Your task to perform on an android device: Open Google Chrome and click the shortcut for Amazon.com Image 0: 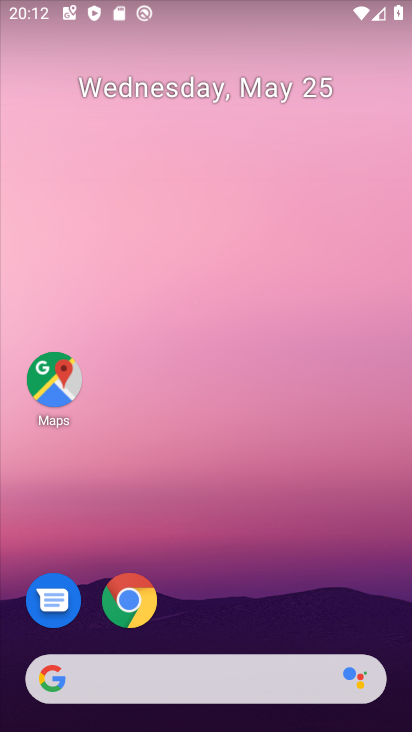
Step 0: drag from (345, 534) to (299, 197)
Your task to perform on an android device: Open Google Chrome and click the shortcut for Amazon.com Image 1: 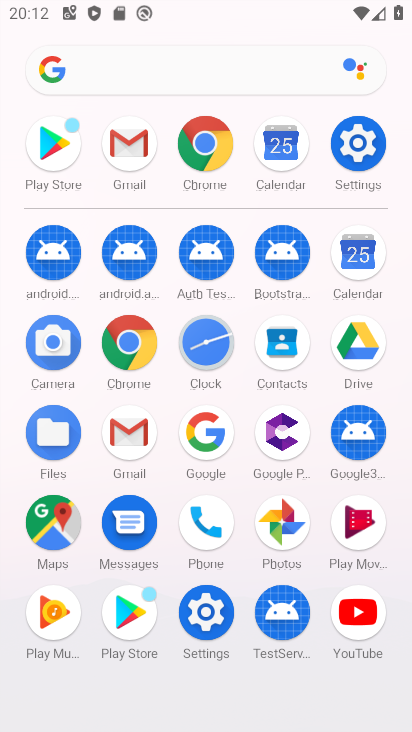
Step 1: click (109, 335)
Your task to perform on an android device: Open Google Chrome and click the shortcut for Amazon.com Image 2: 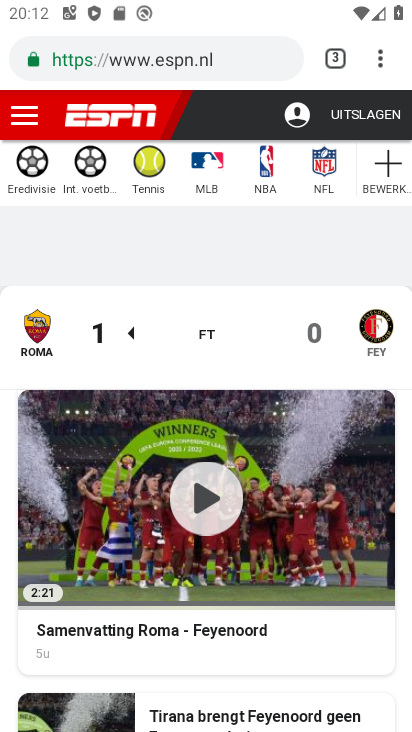
Step 2: click (340, 57)
Your task to perform on an android device: Open Google Chrome and click the shortcut for Amazon.com Image 3: 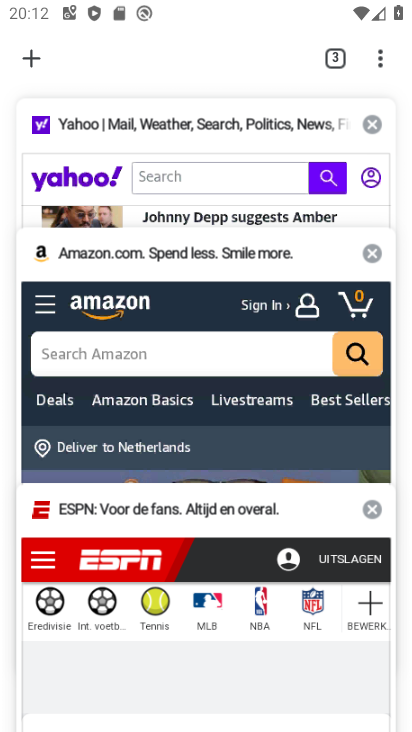
Step 3: click (36, 53)
Your task to perform on an android device: Open Google Chrome and click the shortcut for Amazon.com Image 4: 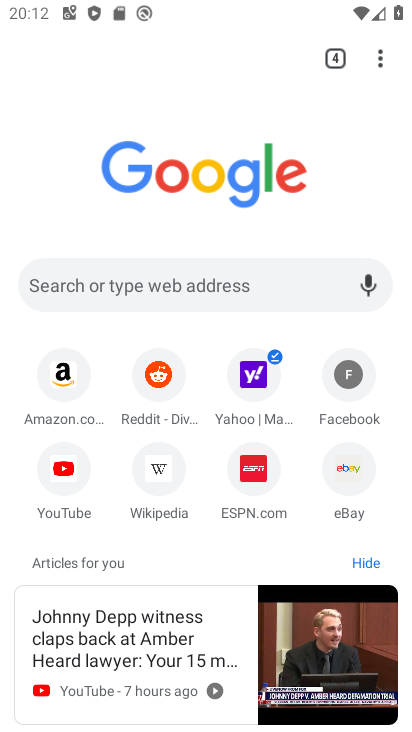
Step 4: drag from (377, 65) to (48, 148)
Your task to perform on an android device: Open Google Chrome and click the shortcut for Amazon.com Image 5: 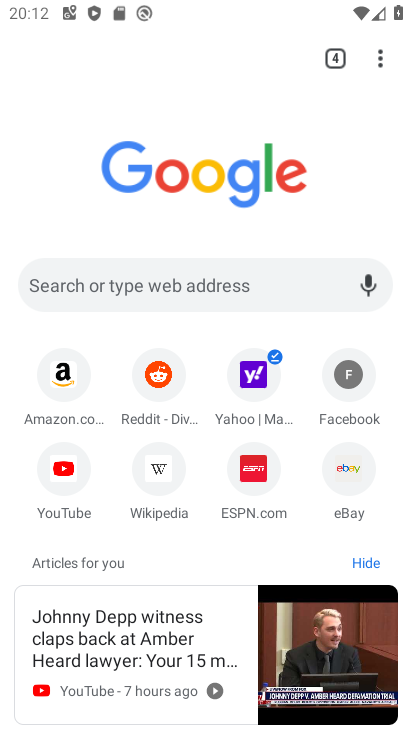
Step 5: click (30, 385)
Your task to perform on an android device: Open Google Chrome and click the shortcut for Amazon.com Image 6: 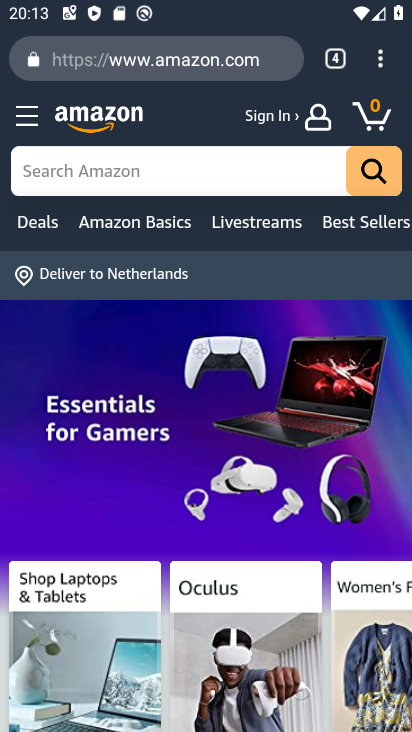
Step 6: task complete